Your task to perform on an android device: Go to wifi settings Image 0: 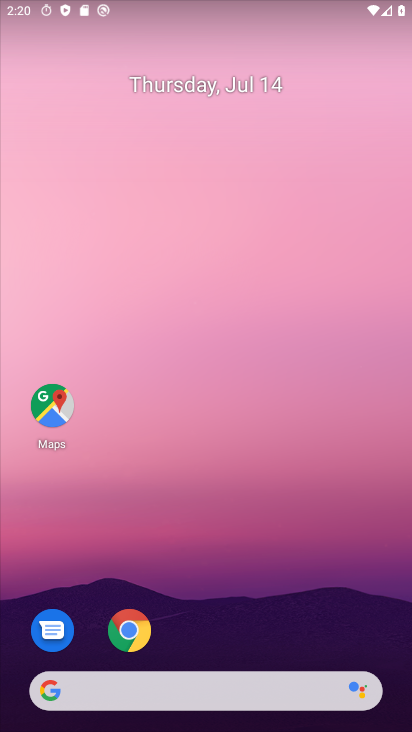
Step 0: drag from (231, 647) to (231, 149)
Your task to perform on an android device: Go to wifi settings Image 1: 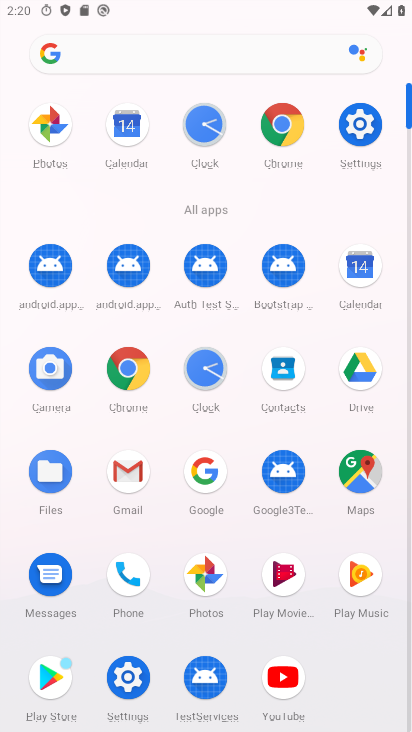
Step 1: click (368, 120)
Your task to perform on an android device: Go to wifi settings Image 2: 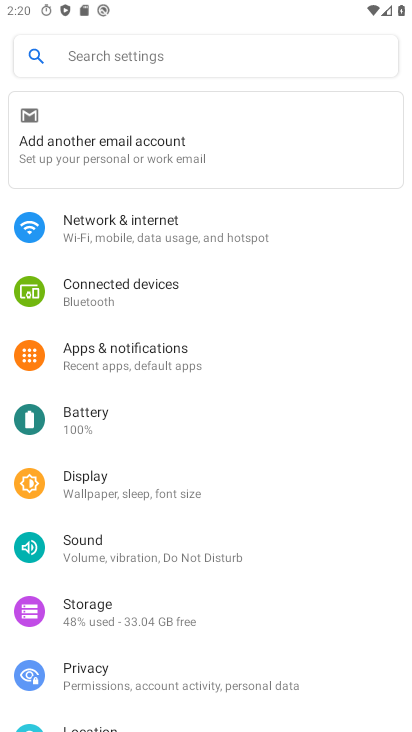
Step 2: click (101, 219)
Your task to perform on an android device: Go to wifi settings Image 3: 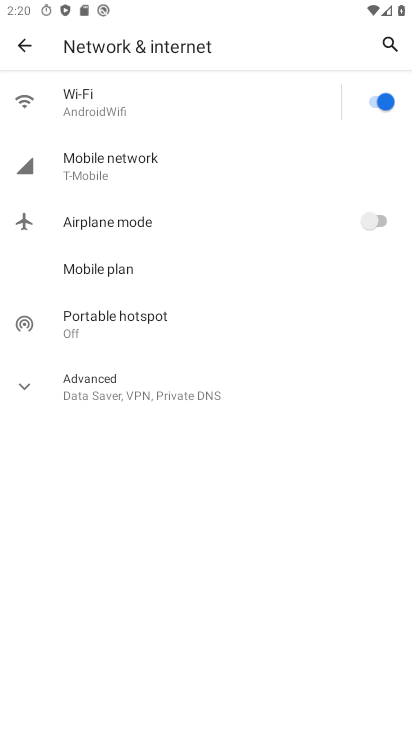
Step 3: click (73, 103)
Your task to perform on an android device: Go to wifi settings Image 4: 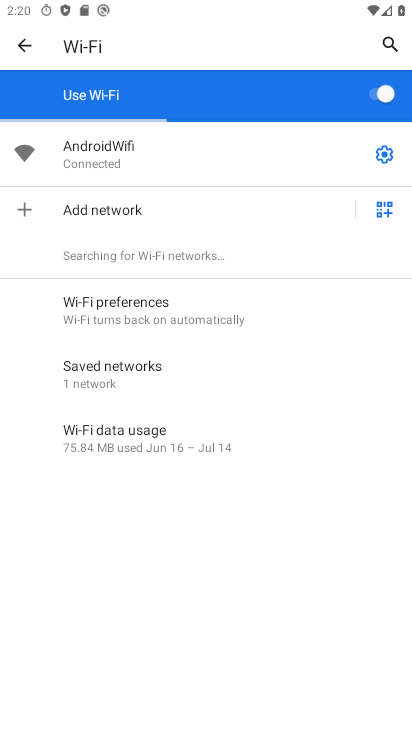
Step 4: task complete